Your task to perform on an android device: Open Reddit.com Image 0: 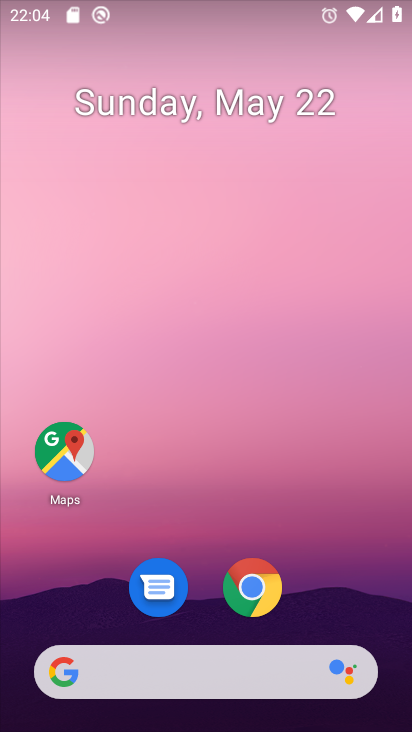
Step 0: click (273, 678)
Your task to perform on an android device: Open Reddit.com Image 1: 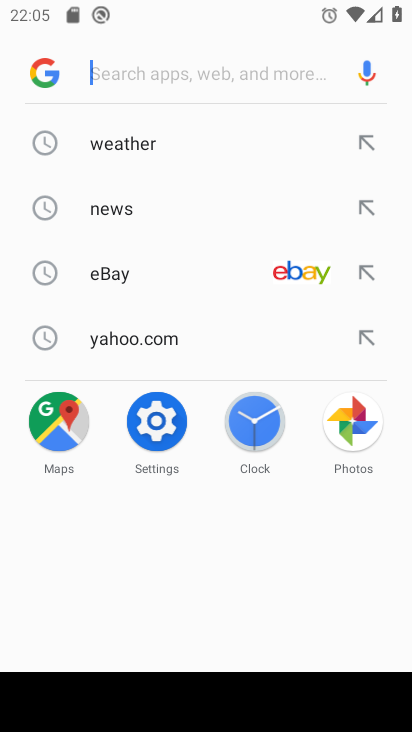
Step 1: type "Reddit.com"
Your task to perform on an android device: Open Reddit.com Image 2: 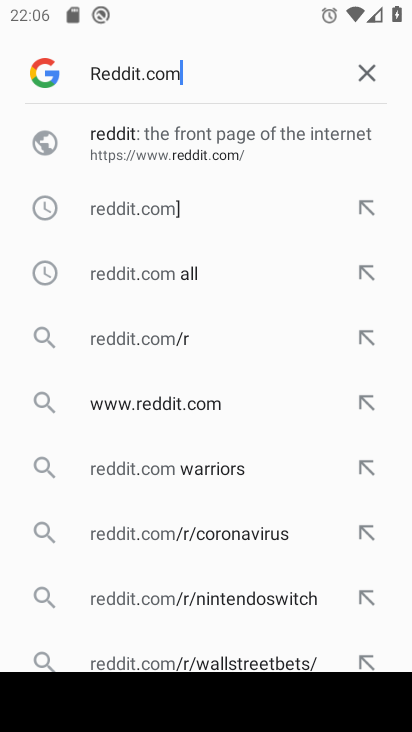
Step 2: click (131, 402)
Your task to perform on an android device: Open Reddit.com Image 3: 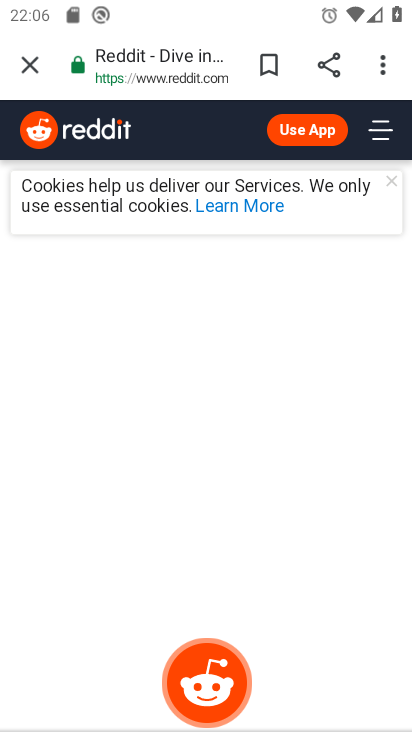
Step 3: task complete